Your task to perform on an android device: move an email to a new category in the gmail app Image 0: 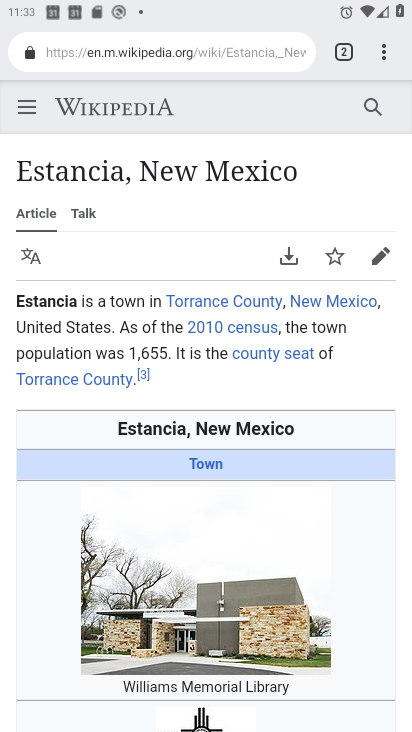
Step 0: press back button
Your task to perform on an android device: move an email to a new category in the gmail app Image 1: 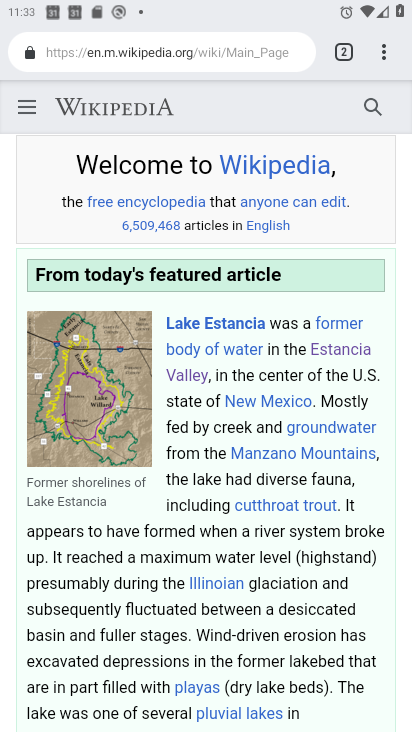
Step 1: press home button
Your task to perform on an android device: move an email to a new category in the gmail app Image 2: 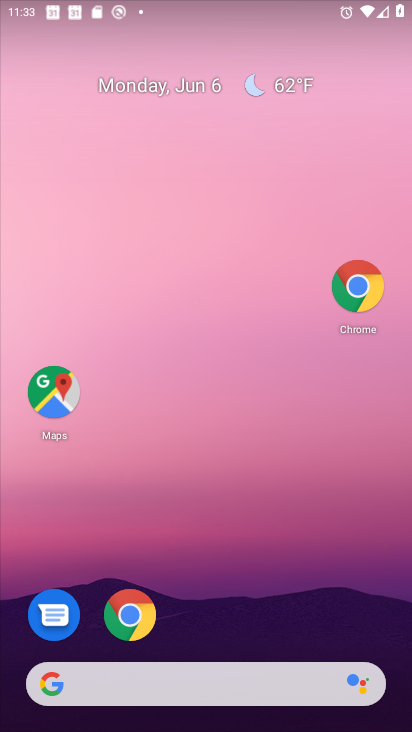
Step 2: drag from (280, 694) to (127, 19)
Your task to perform on an android device: move an email to a new category in the gmail app Image 3: 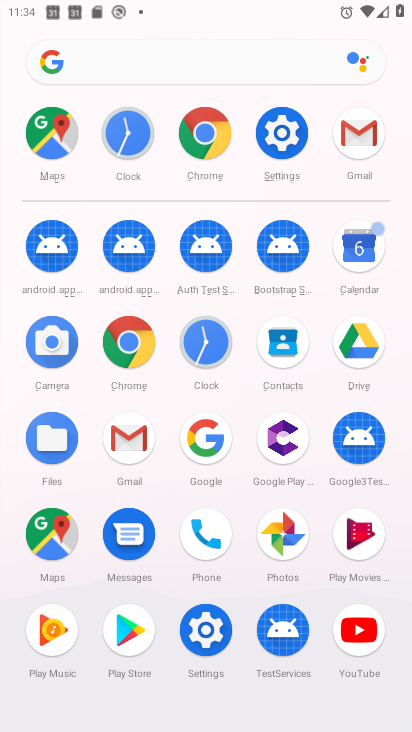
Step 3: click (118, 431)
Your task to perform on an android device: move an email to a new category in the gmail app Image 4: 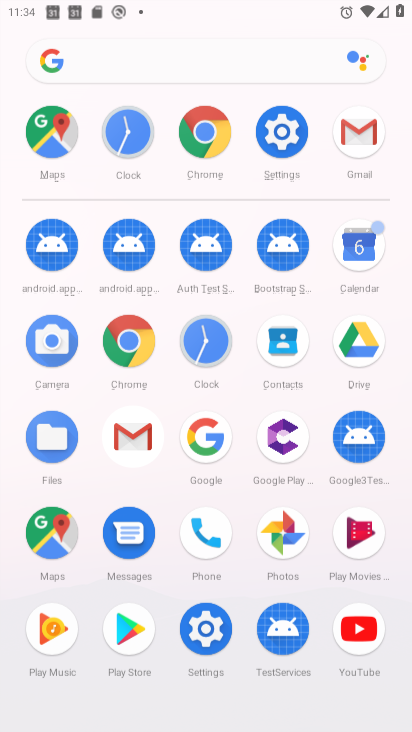
Step 4: click (116, 433)
Your task to perform on an android device: move an email to a new category in the gmail app Image 5: 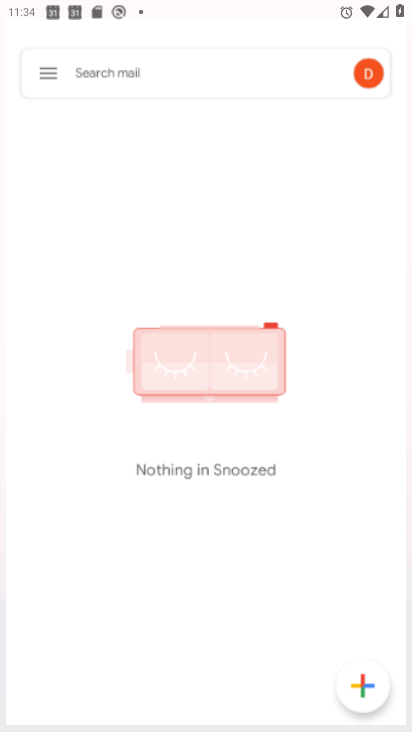
Step 5: click (116, 433)
Your task to perform on an android device: move an email to a new category in the gmail app Image 6: 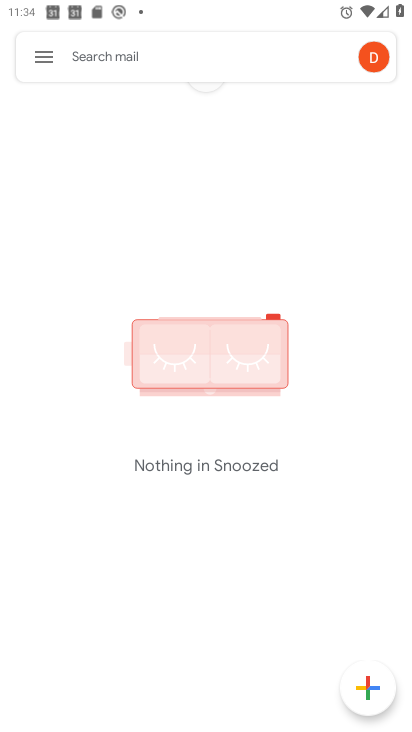
Step 6: click (123, 448)
Your task to perform on an android device: move an email to a new category in the gmail app Image 7: 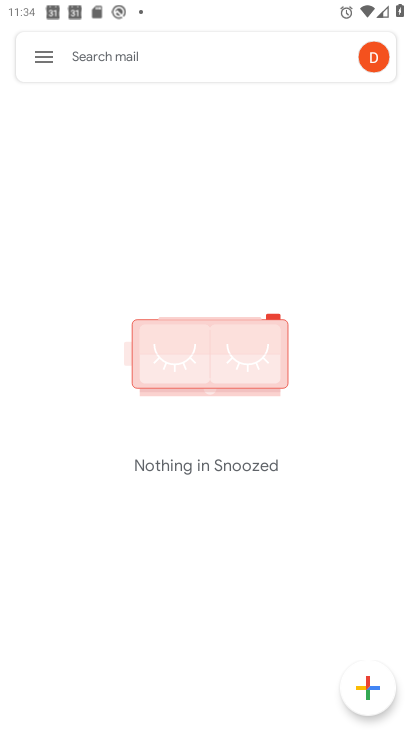
Step 7: click (39, 50)
Your task to perform on an android device: move an email to a new category in the gmail app Image 8: 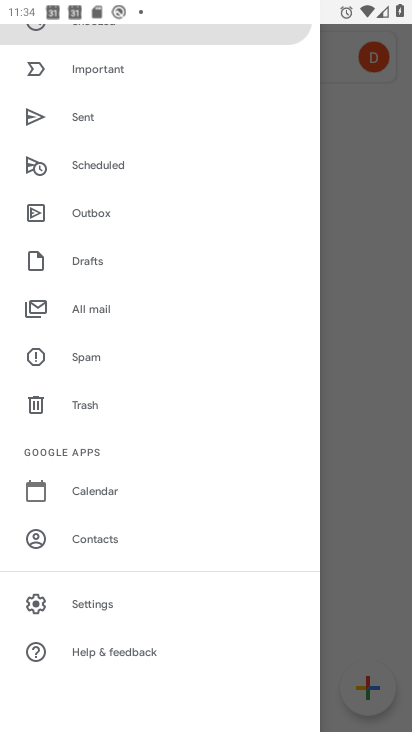
Step 8: click (94, 303)
Your task to perform on an android device: move an email to a new category in the gmail app Image 9: 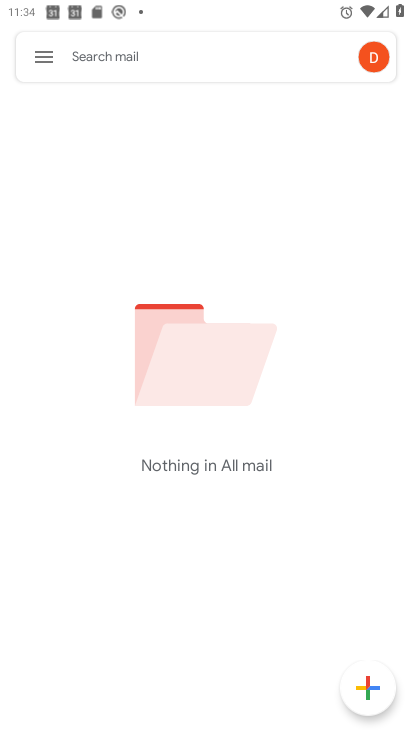
Step 9: task complete